Your task to perform on an android device: Open eBay Image 0: 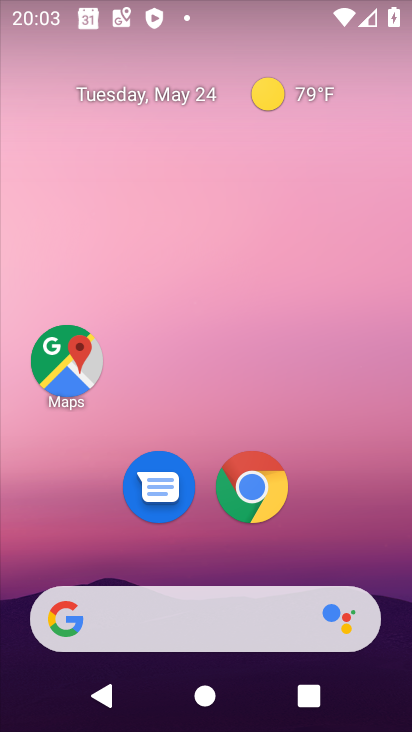
Step 0: click (258, 475)
Your task to perform on an android device: Open eBay Image 1: 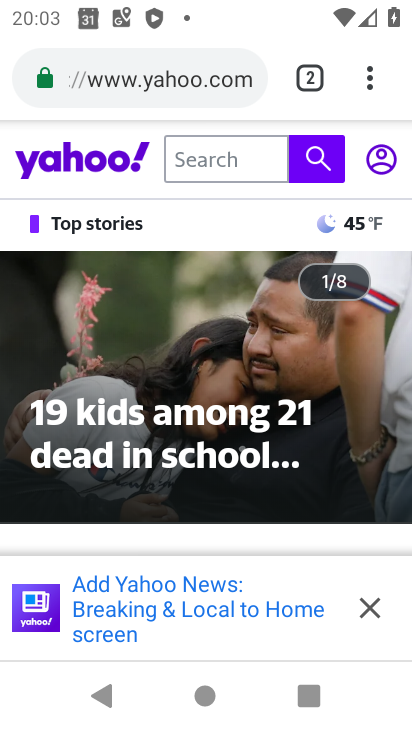
Step 1: click (103, 84)
Your task to perform on an android device: Open eBay Image 2: 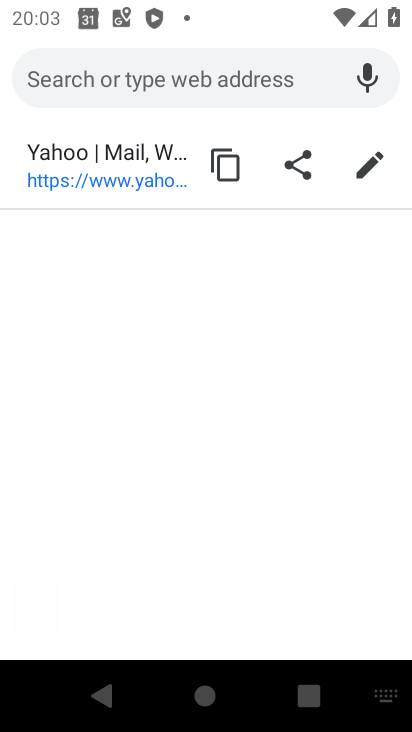
Step 2: type "eBay"
Your task to perform on an android device: Open eBay Image 3: 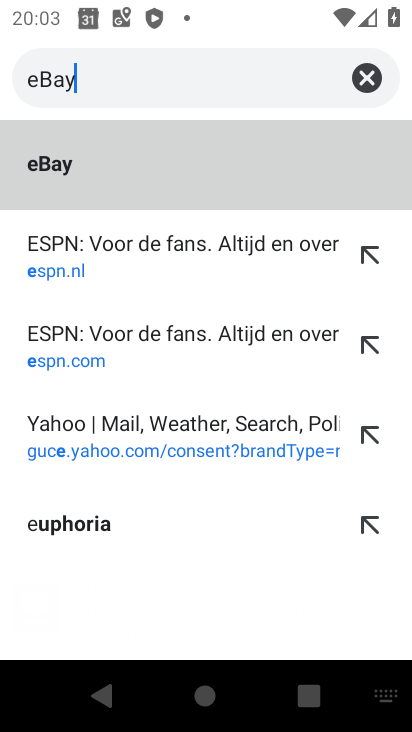
Step 3: type ""
Your task to perform on an android device: Open eBay Image 4: 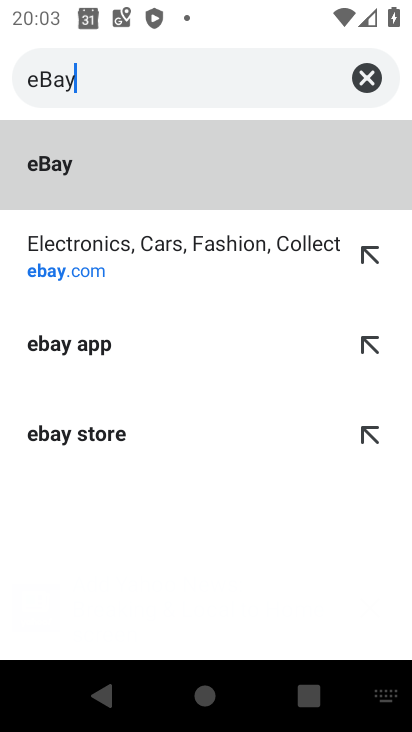
Step 4: click (153, 235)
Your task to perform on an android device: Open eBay Image 5: 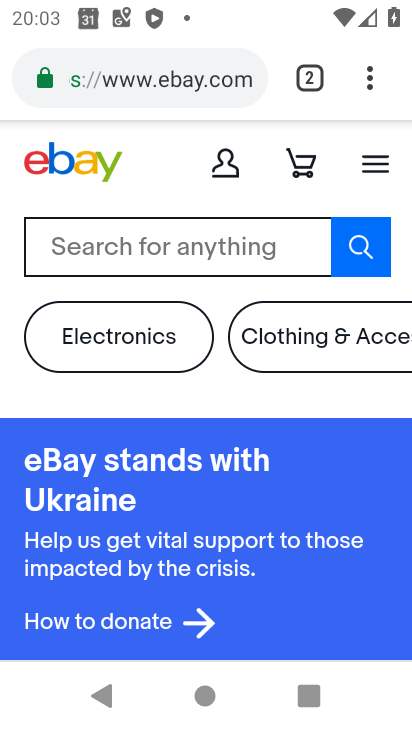
Step 5: task complete